Your task to perform on an android device: Go to privacy settings Image 0: 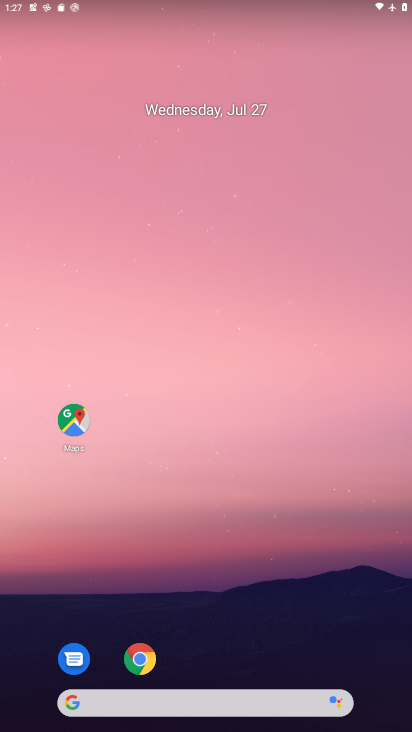
Step 0: task complete